Your task to perform on an android device: Open internet settings Image 0: 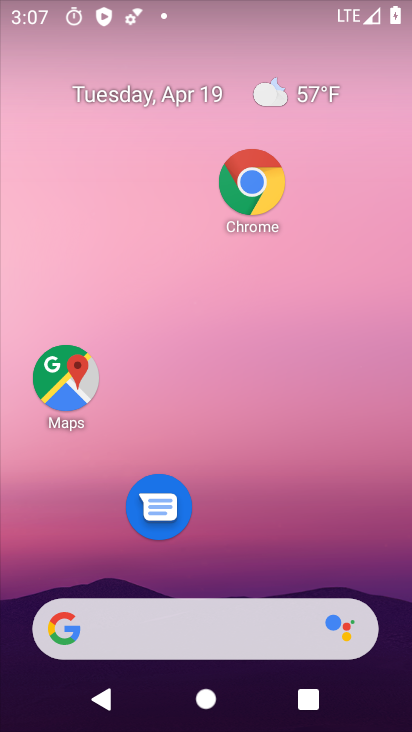
Step 0: drag from (288, 347) to (314, 62)
Your task to perform on an android device: Open internet settings Image 1: 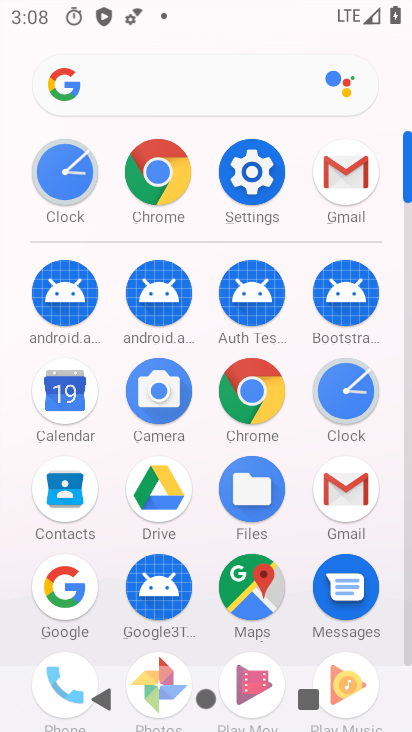
Step 1: click (270, 180)
Your task to perform on an android device: Open internet settings Image 2: 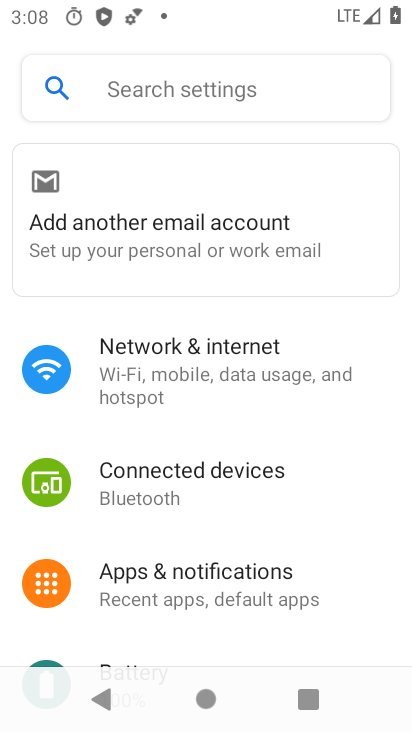
Step 2: click (270, 368)
Your task to perform on an android device: Open internet settings Image 3: 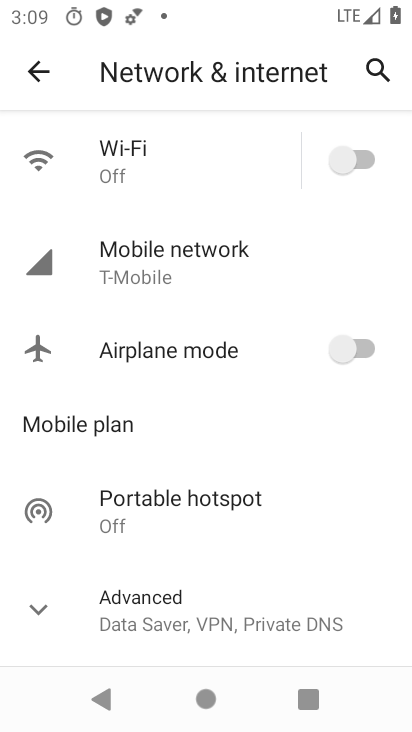
Step 3: task complete